Your task to perform on an android device: Search for seafood restaurants on Google Maps Image 0: 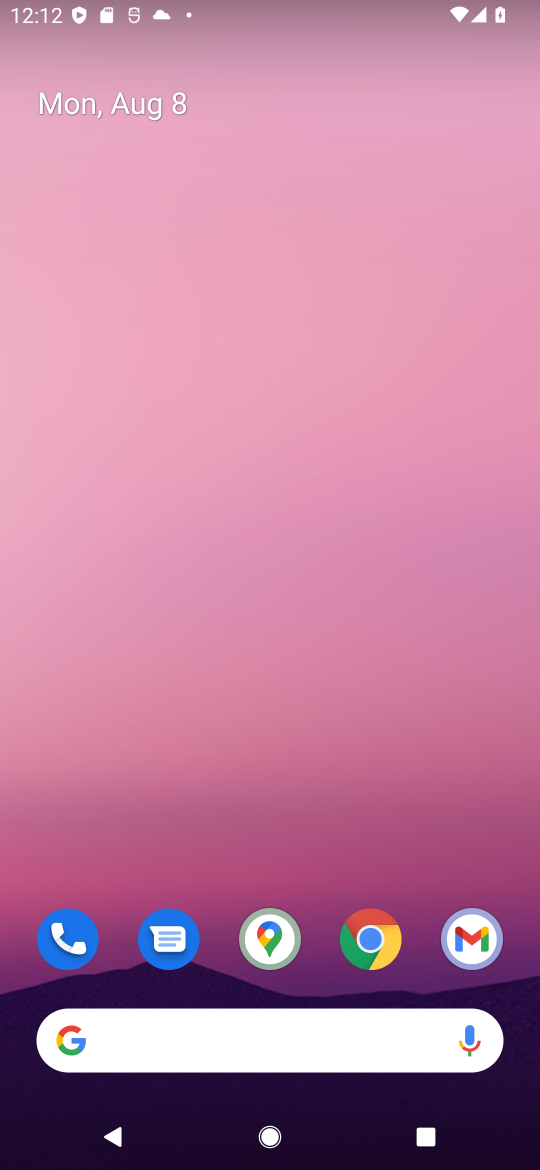
Step 0: drag from (195, 1024) to (378, 235)
Your task to perform on an android device: Search for seafood restaurants on Google Maps Image 1: 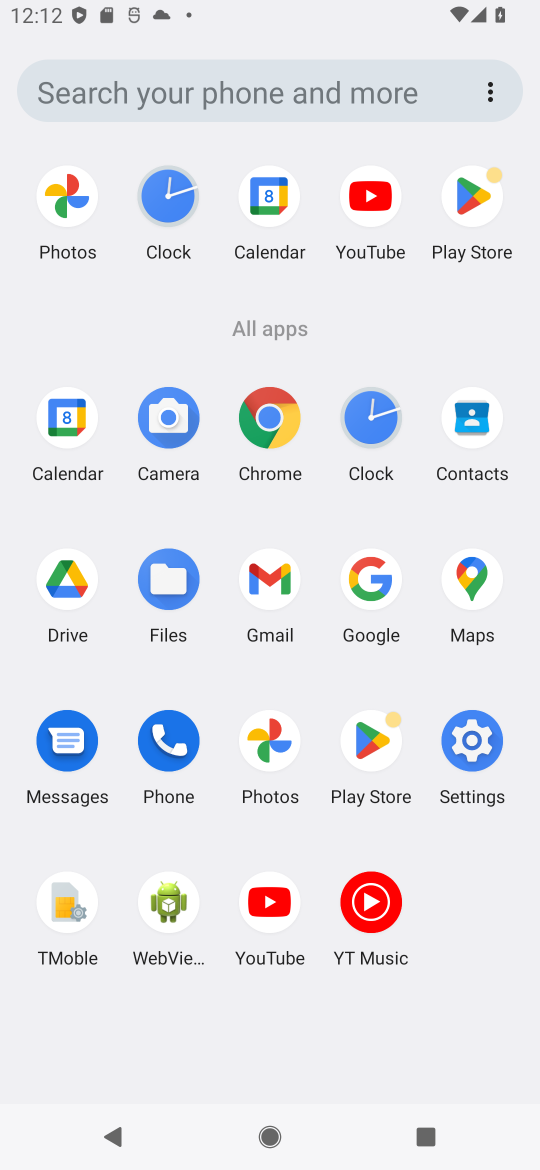
Step 1: click (470, 569)
Your task to perform on an android device: Search for seafood restaurants on Google Maps Image 2: 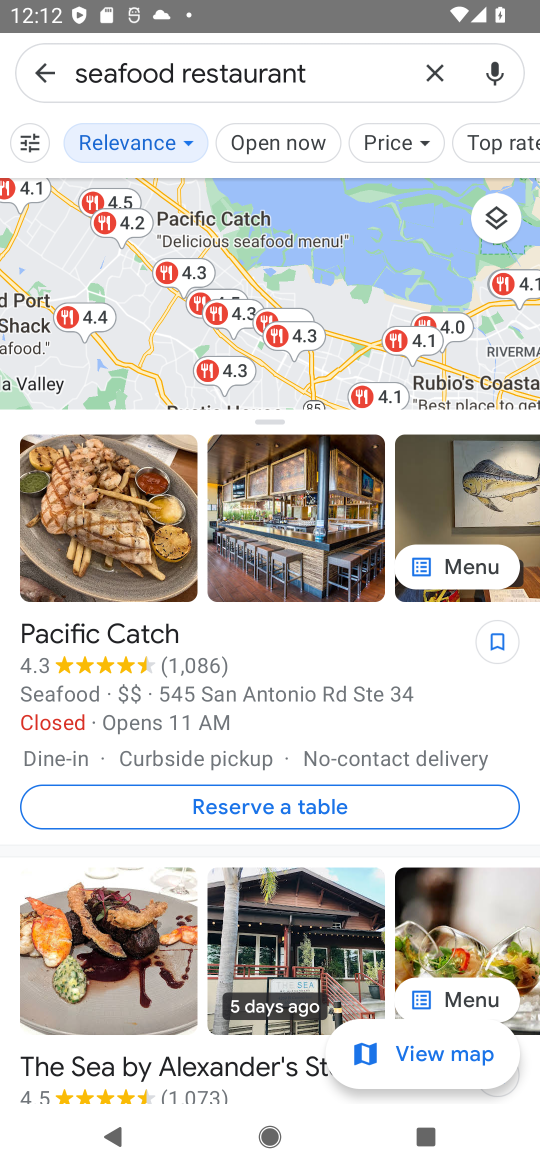
Step 2: click (436, 78)
Your task to perform on an android device: Search for seafood restaurants on Google Maps Image 3: 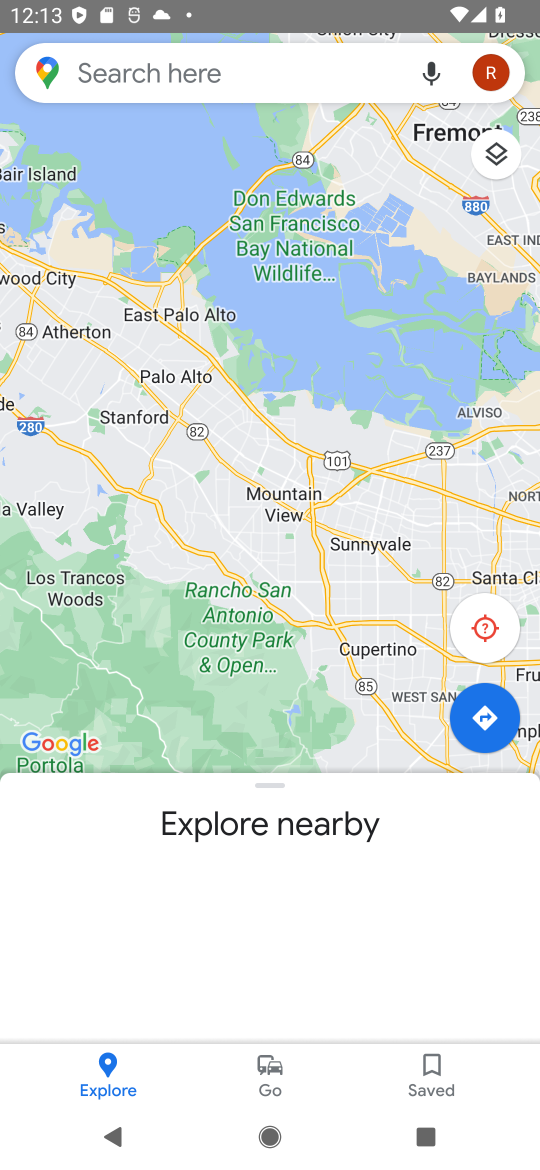
Step 3: type "seafood restaurants"
Your task to perform on an android device: Search for seafood restaurants on Google Maps Image 4: 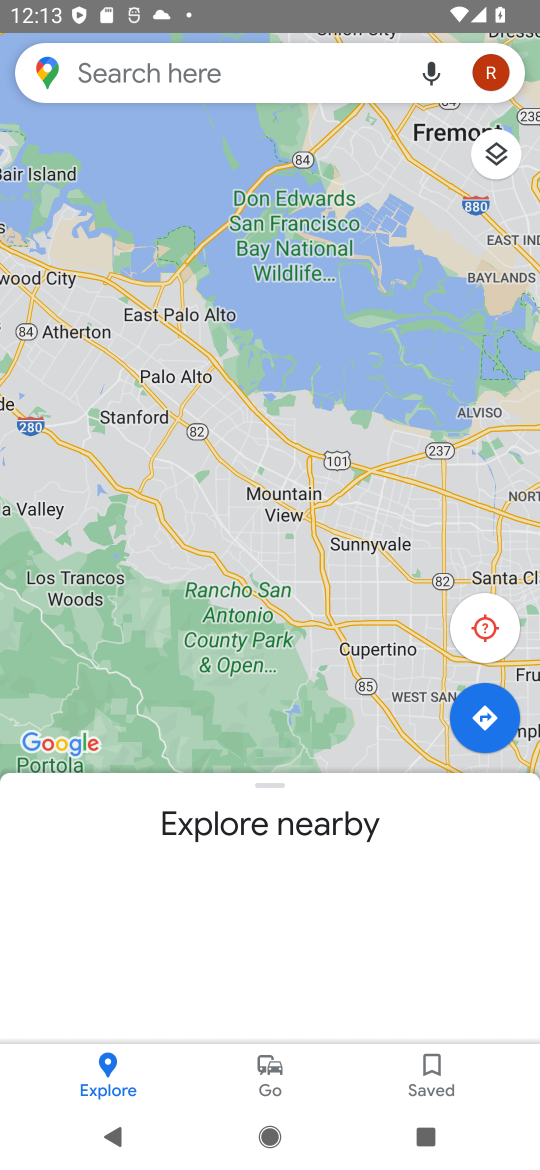
Step 4: click (302, 74)
Your task to perform on an android device: Search for seafood restaurants on Google Maps Image 5: 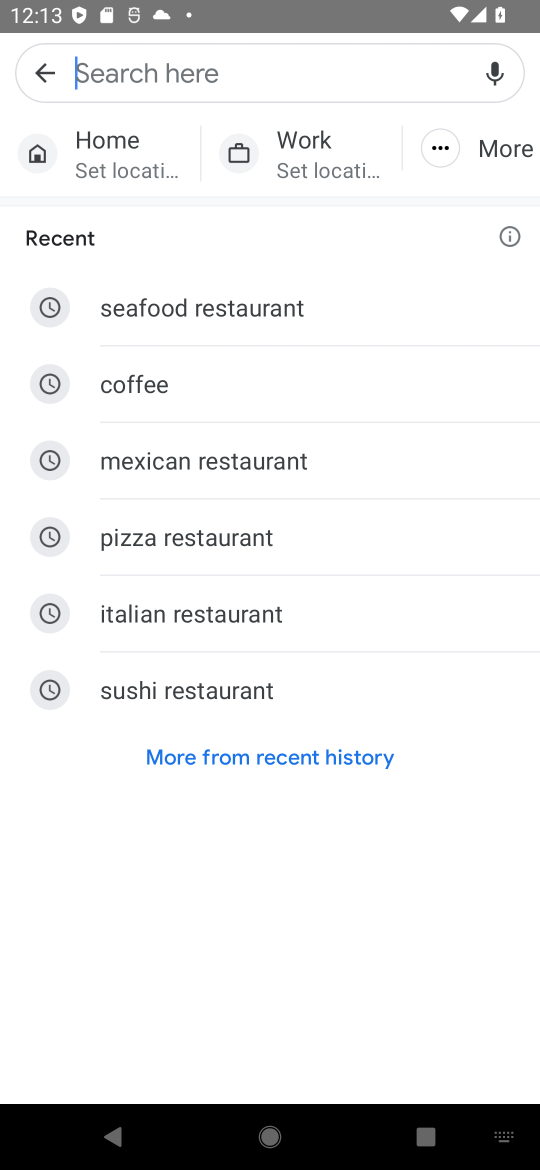
Step 5: click (296, 315)
Your task to perform on an android device: Search for seafood restaurants on Google Maps Image 6: 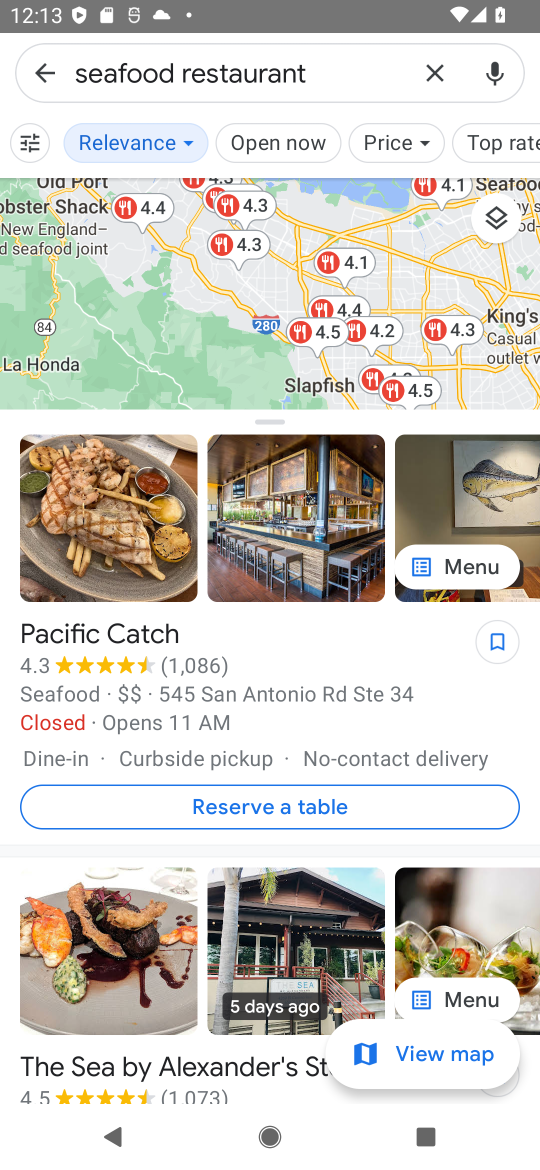
Step 6: task complete